Your task to perform on an android device: uninstall "Gboard" Image 0: 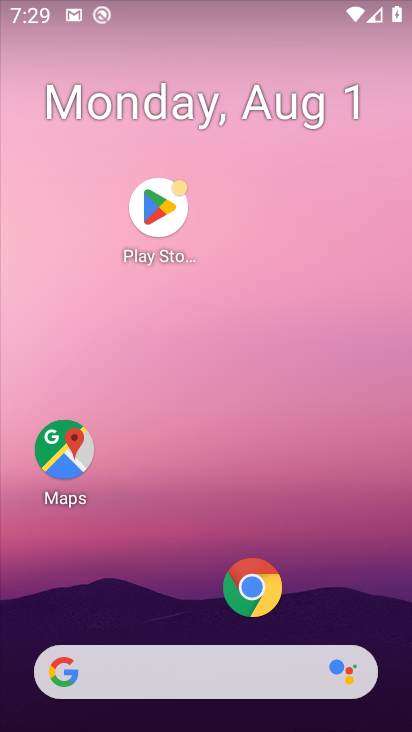
Step 0: click (139, 201)
Your task to perform on an android device: uninstall "Gboard" Image 1: 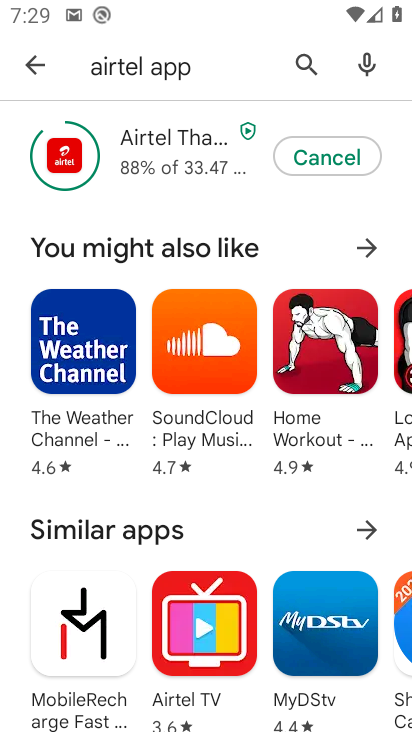
Step 1: click (320, 75)
Your task to perform on an android device: uninstall "Gboard" Image 2: 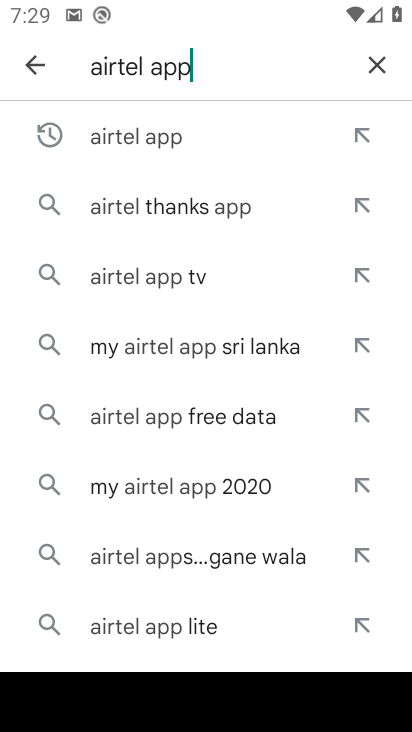
Step 2: click (371, 70)
Your task to perform on an android device: uninstall "Gboard" Image 3: 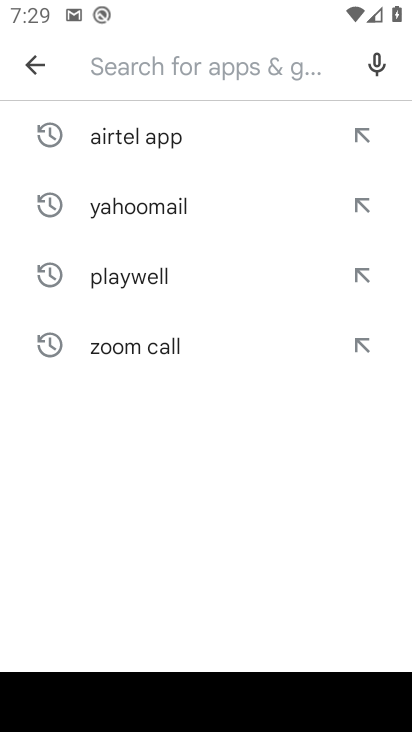
Step 3: type "gboard"
Your task to perform on an android device: uninstall "Gboard" Image 4: 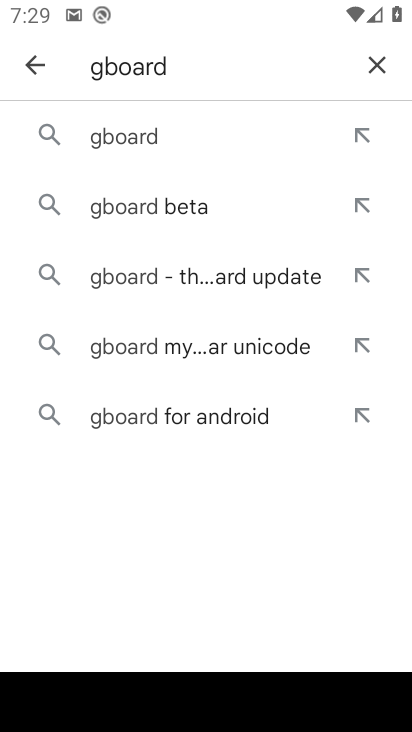
Step 4: click (358, 141)
Your task to perform on an android device: uninstall "Gboard" Image 5: 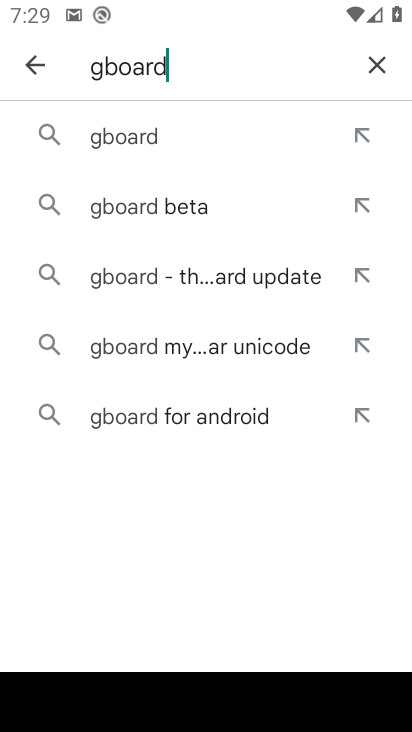
Step 5: click (246, 141)
Your task to perform on an android device: uninstall "Gboard" Image 6: 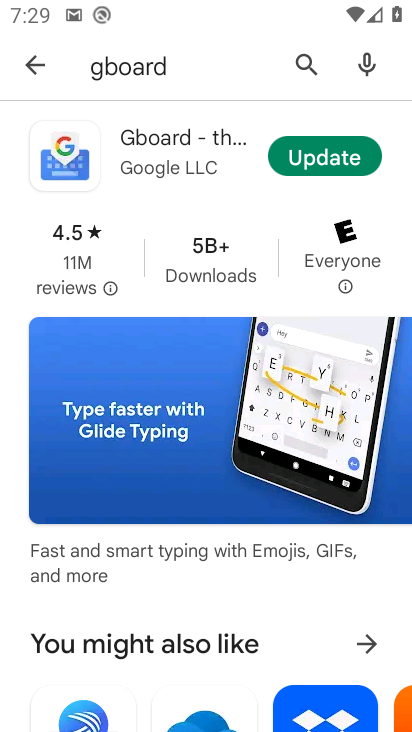
Step 6: click (308, 146)
Your task to perform on an android device: uninstall "Gboard" Image 7: 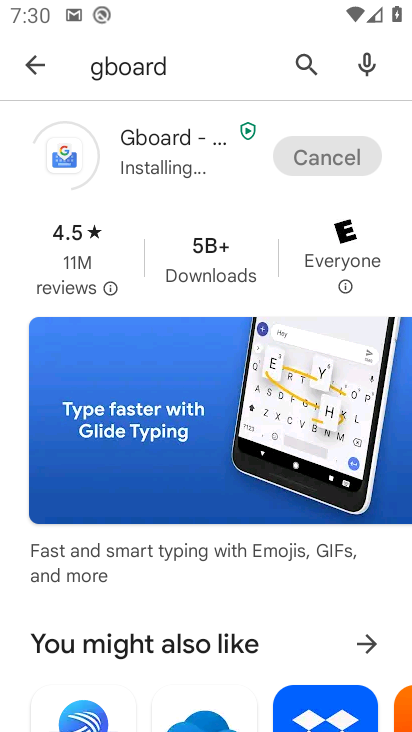
Step 7: task complete